Your task to perform on an android device: change keyboard looks Image 0: 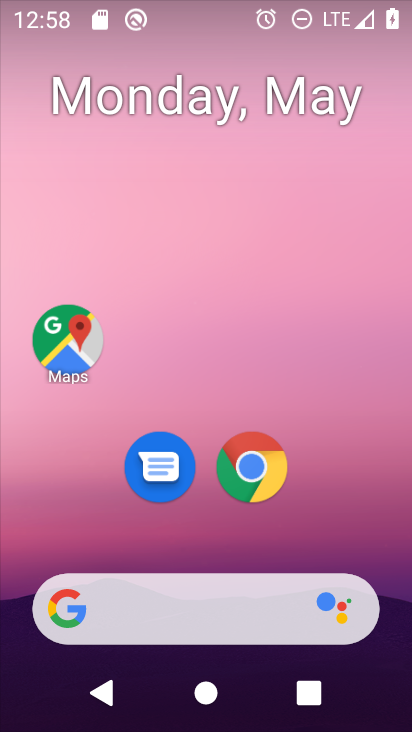
Step 0: drag from (381, 553) to (393, 17)
Your task to perform on an android device: change keyboard looks Image 1: 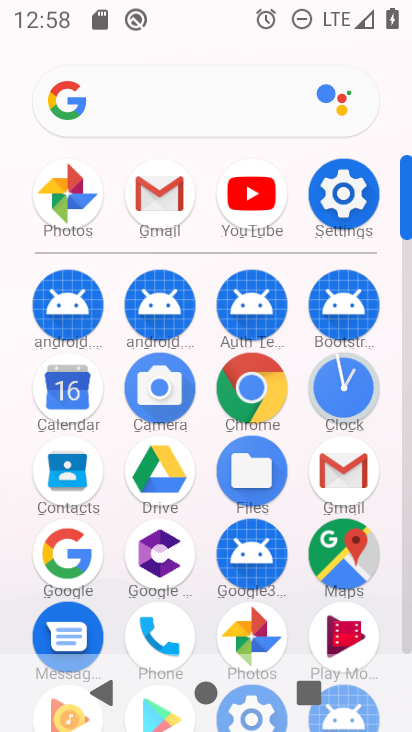
Step 1: click (340, 192)
Your task to perform on an android device: change keyboard looks Image 2: 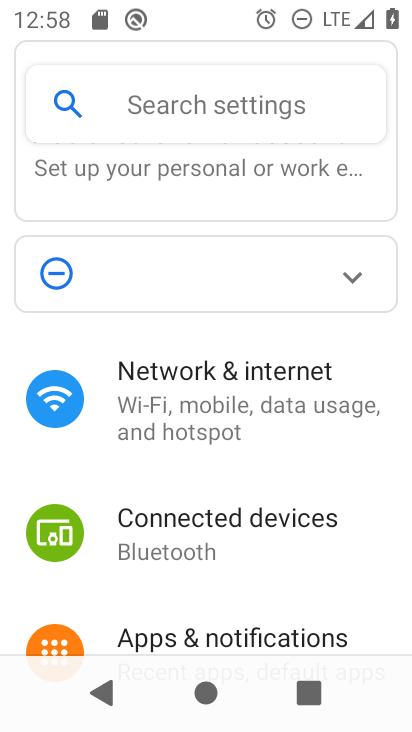
Step 2: drag from (351, 575) to (359, 54)
Your task to perform on an android device: change keyboard looks Image 3: 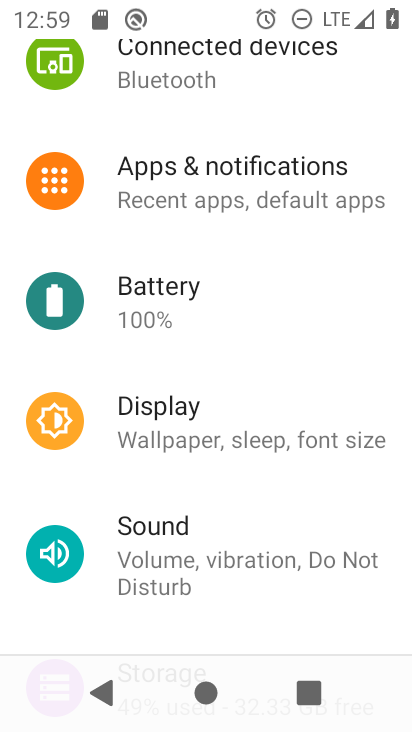
Step 3: drag from (334, 491) to (342, 20)
Your task to perform on an android device: change keyboard looks Image 4: 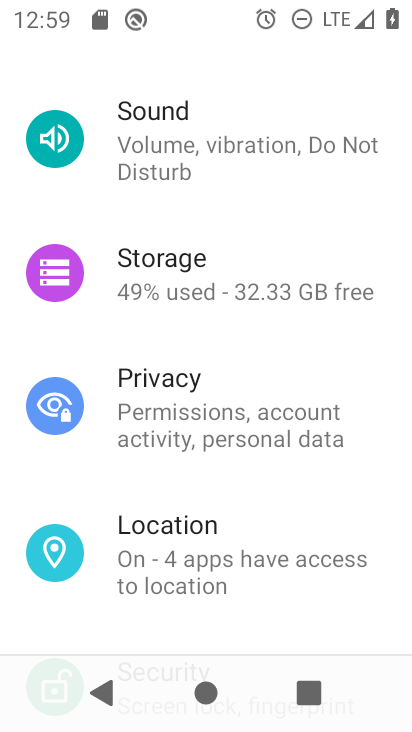
Step 4: drag from (343, 455) to (336, 18)
Your task to perform on an android device: change keyboard looks Image 5: 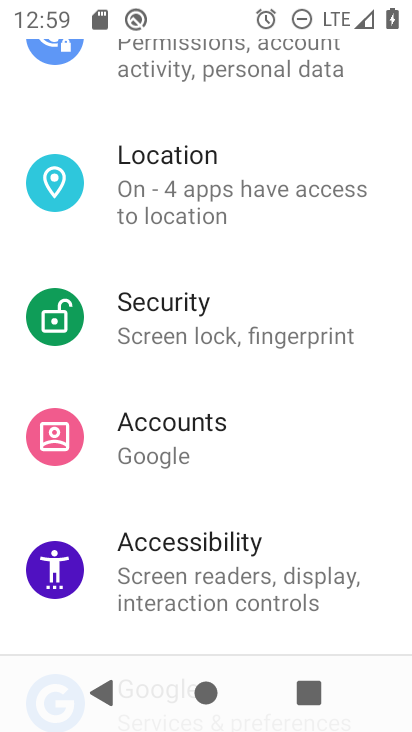
Step 5: drag from (293, 466) to (302, 58)
Your task to perform on an android device: change keyboard looks Image 6: 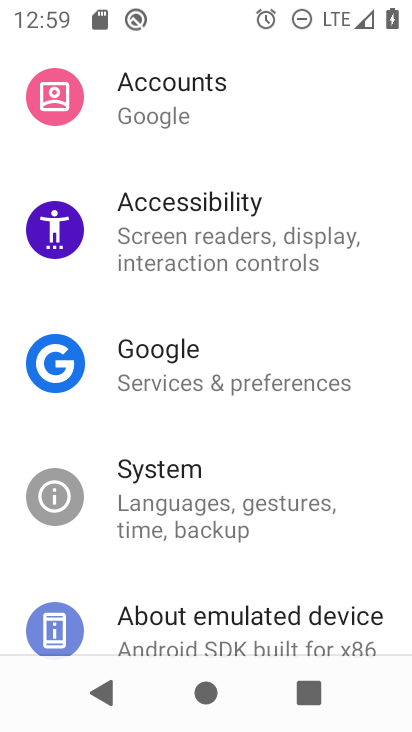
Step 6: click (197, 518)
Your task to perform on an android device: change keyboard looks Image 7: 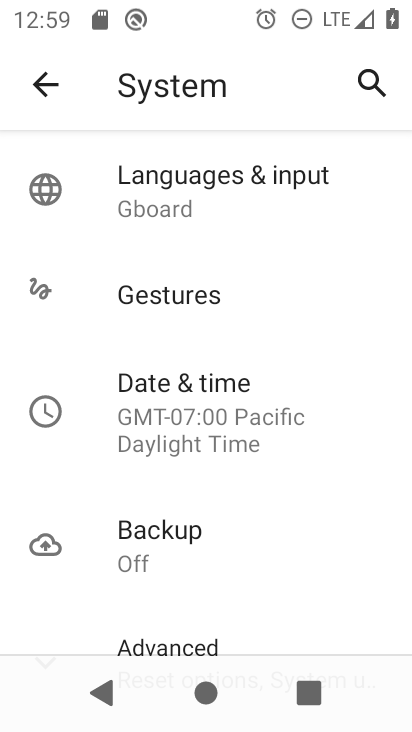
Step 7: click (172, 216)
Your task to perform on an android device: change keyboard looks Image 8: 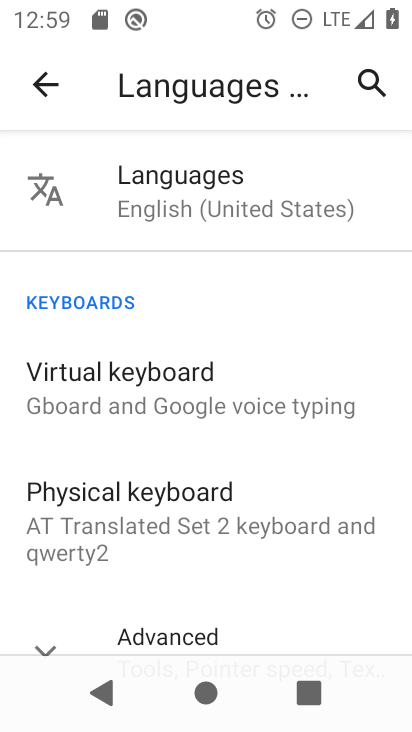
Step 8: click (121, 396)
Your task to perform on an android device: change keyboard looks Image 9: 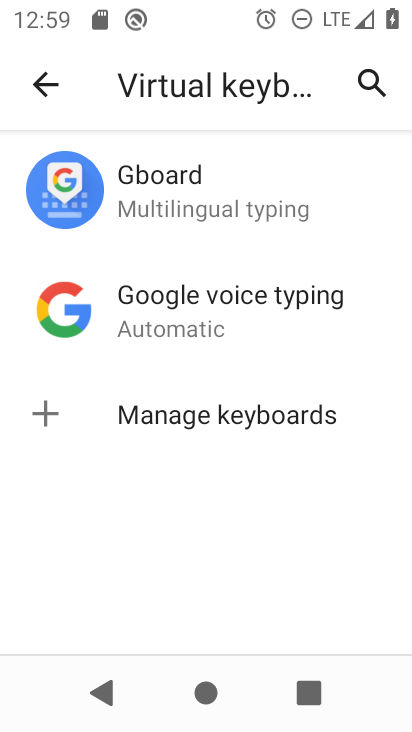
Step 9: click (197, 218)
Your task to perform on an android device: change keyboard looks Image 10: 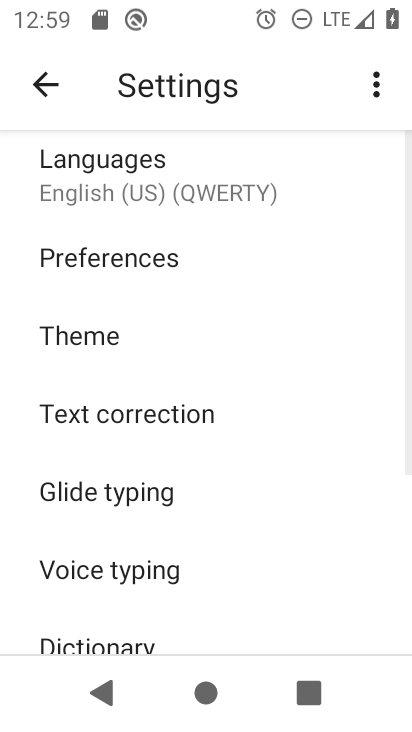
Step 10: click (80, 338)
Your task to perform on an android device: change keyboard looks Image 11: 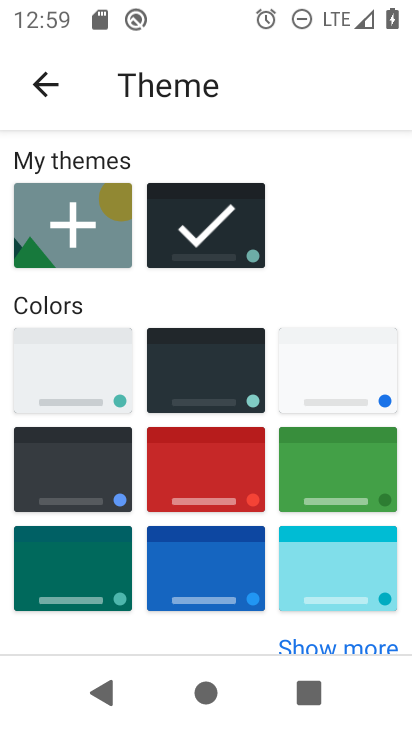
Step 11: click (108, 473)
Your task to perform on an android device: change keyboard looks Image 12: 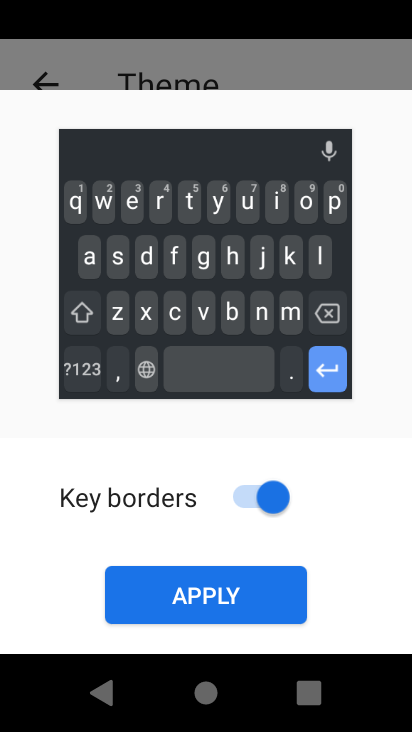
Step 12: click (232, 601)
Your task to perform on an android device: change keyboard looks Image 13: 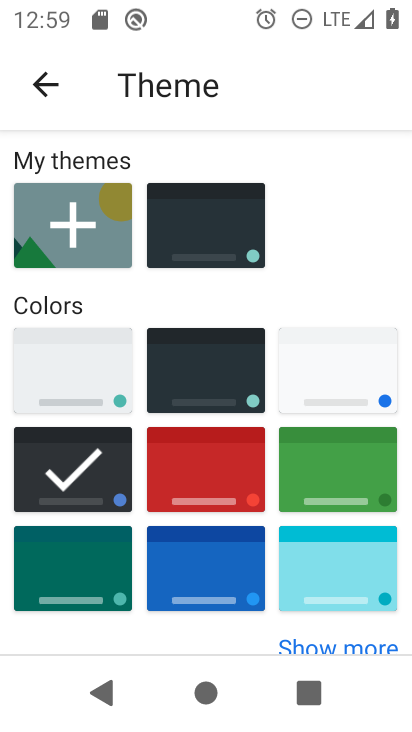
Step 13: task complete